Your task to perform on an android device: turn off location history Image 0: 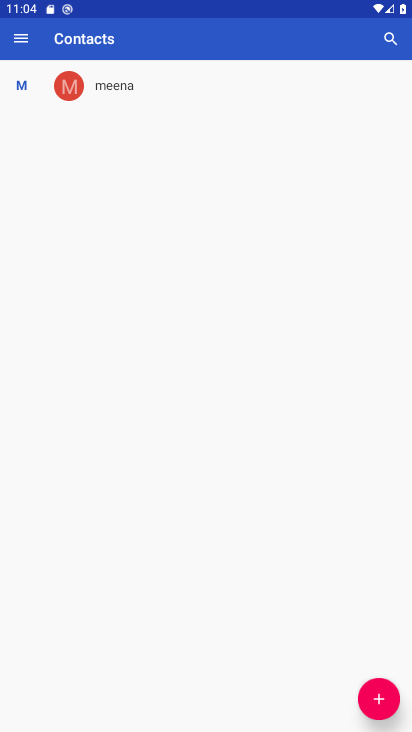
Step 0: press home button
Your task to perform on an android device: turn off location history Image 1: 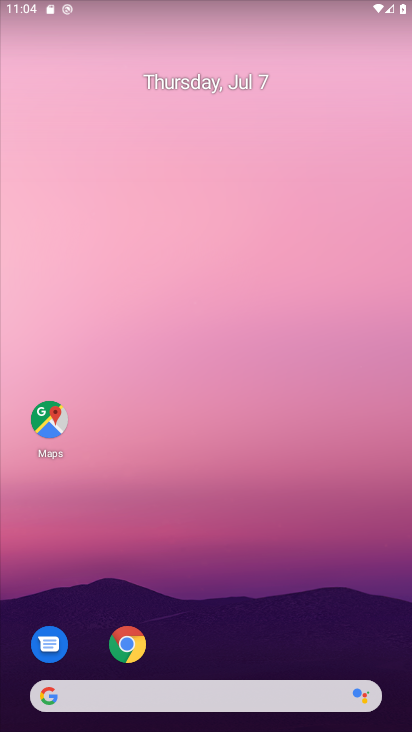
Step 1: drag from (348, 607) to (280, 18)
Your task to perform on an android device: turn off location history Image 2: 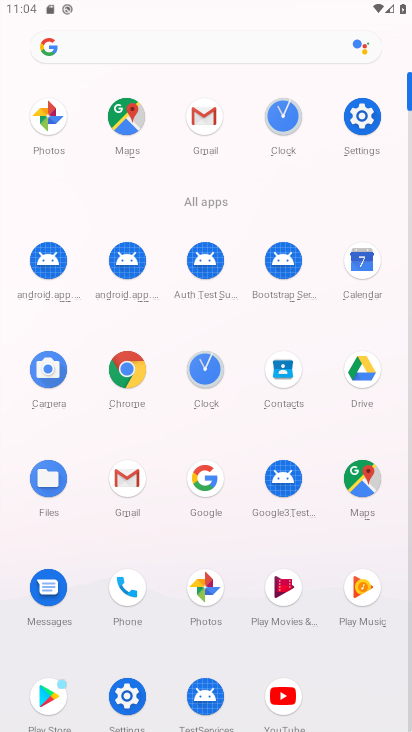
Step 2: click (358, 126)
Your task to perform on an android device: turn off location history Image 3: 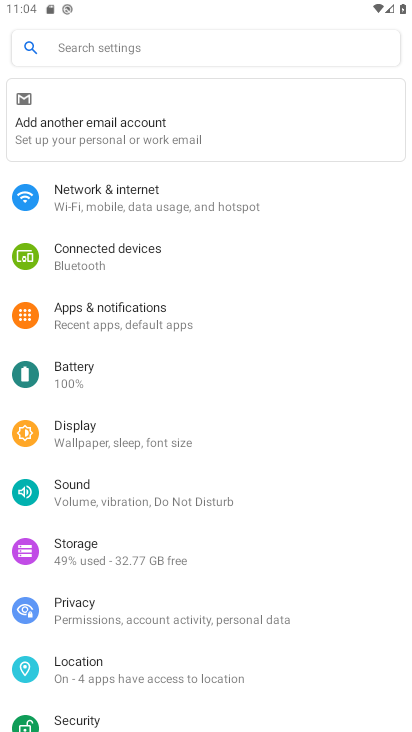
Step 3: click (93, 658)
Your task to perform on an android device: turn off location history Image 4: 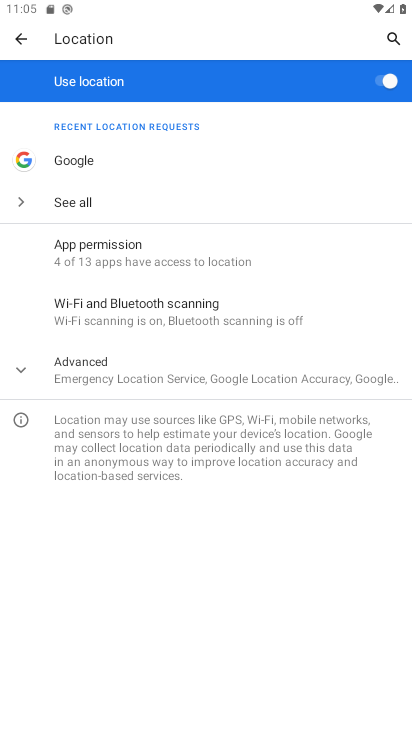
Step 4: click (58, 376)
Your task to perform on an android device: turn off location history Image 5: 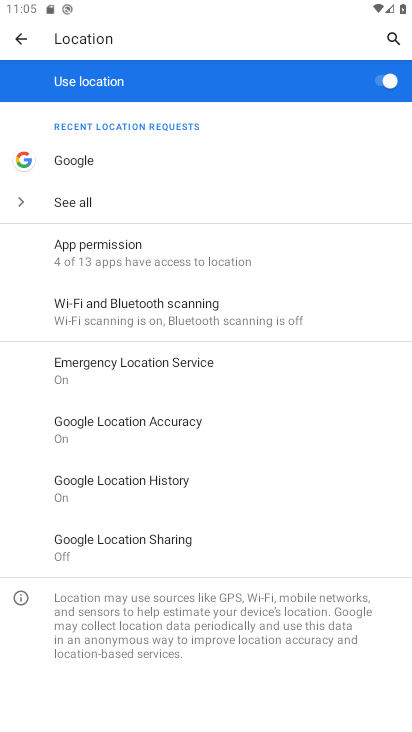
Step 5: click (105, 477)
Your task to perform on an android device: turn off location history Image 6: 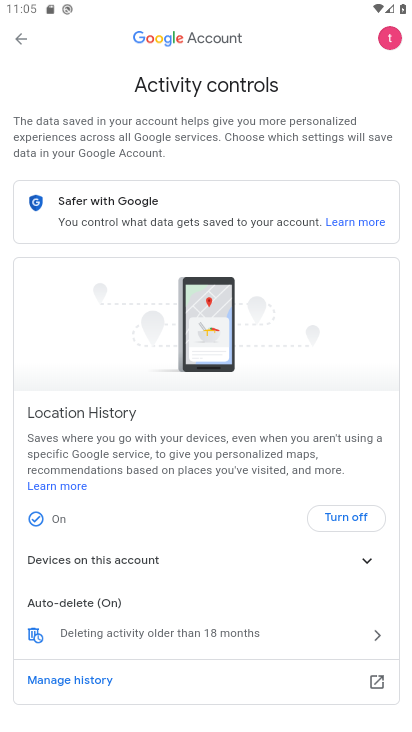
Step 6: click (359, 515)
Your task to perform on an android device: turn off location history Image 7: 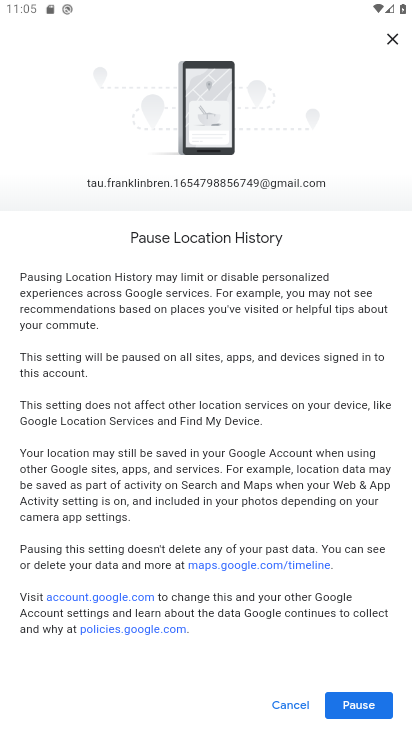
Step 7: click (371, 711)
Your task to perform on an android device: turn off location history Image 8: 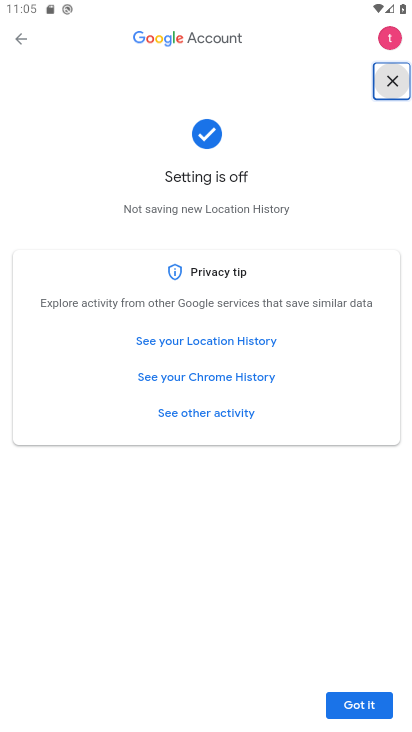
Step 8: drag from (361, 628) to (354, 413)
Your task to perform on an android device: turn off location history Image 9: 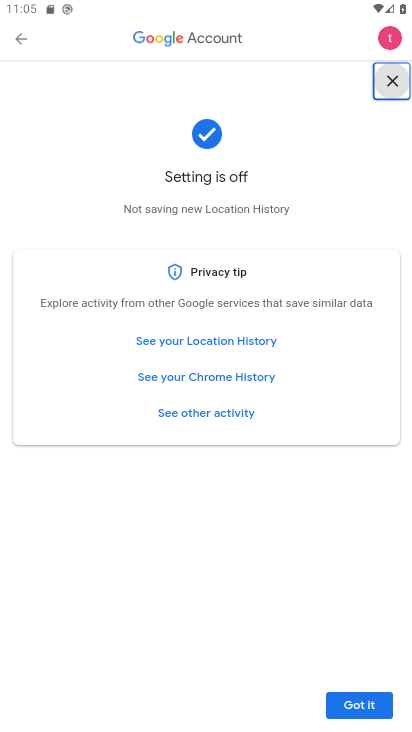
Step 9: click (357, 710)
Your task to perform on an android device: turn off location history Image 10: 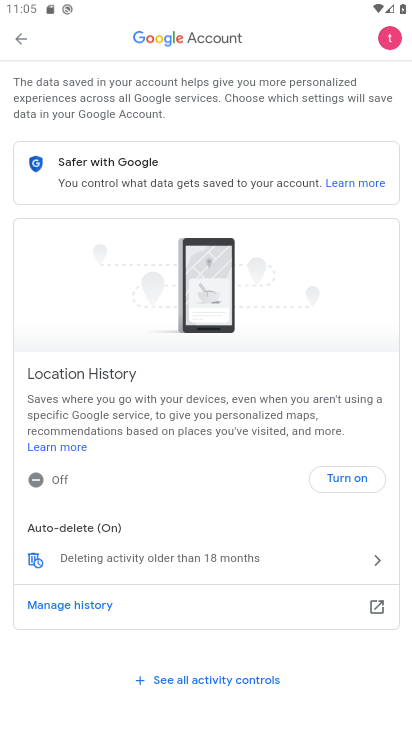
Step 10: task complete